Your task to perform on an android device: open app "Chime – Mobile Banking" (install if not already installed) and go to login screen Image 0: 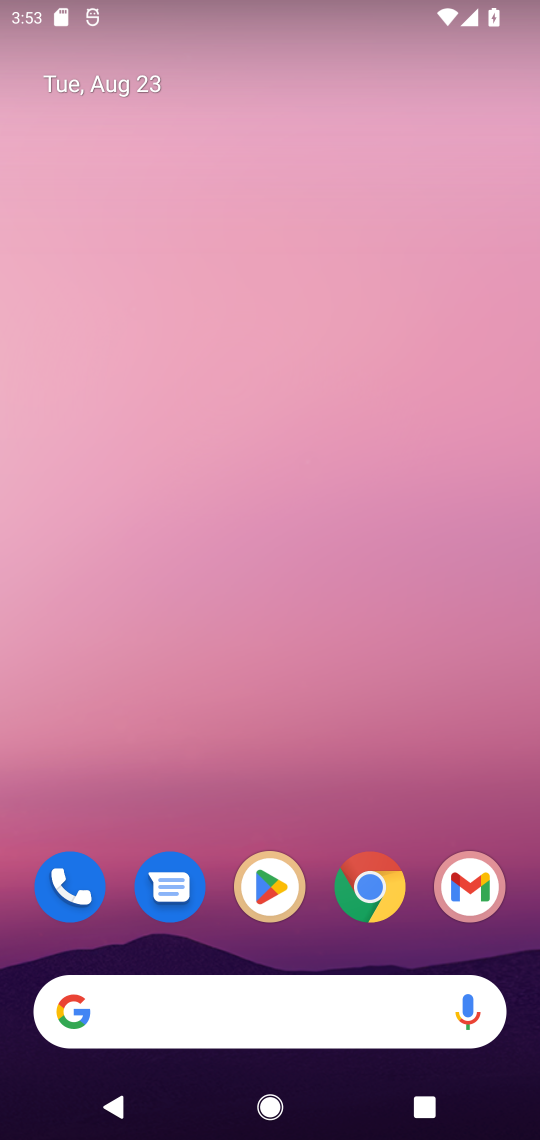
Step 0: click (267, 894)
Your task to perform on an android device: open app "Chime – Mobile Banking" (install if not already installed) and go to login screen Image 1: 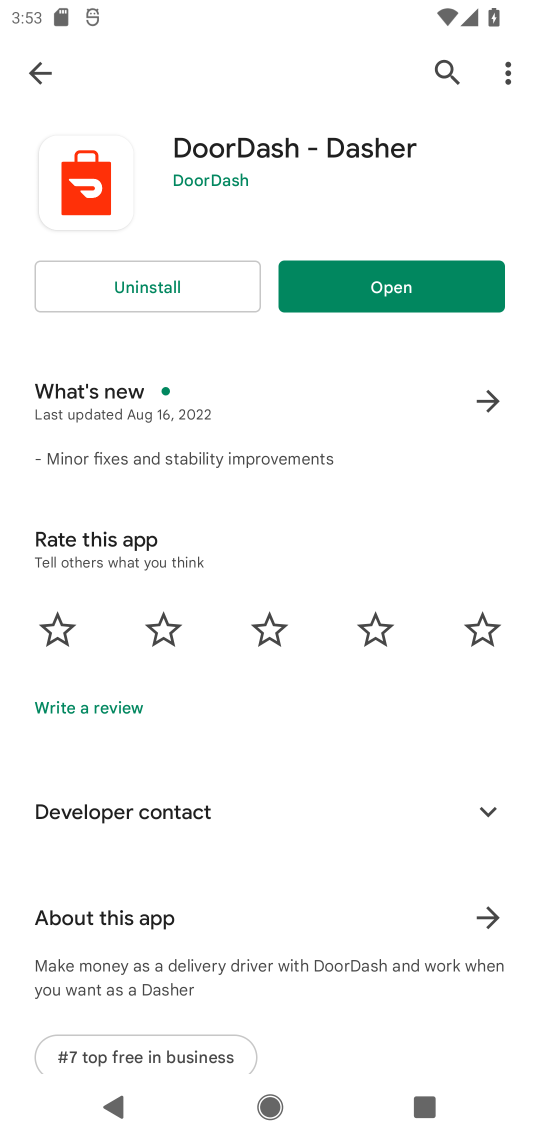
Step 1: click (30, 68)
Your task to perform on an android device: open app "Chime – Mobile Banking" (install if not already installed) and go to login screen Image 2: 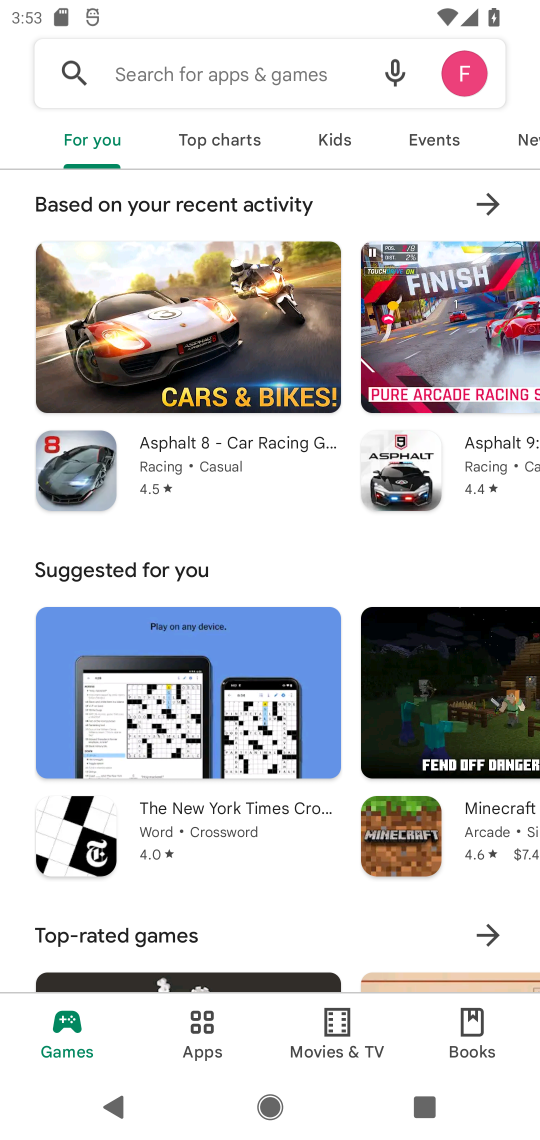
Step 2: click (172, 62)
Your task to perform on an android device: open app "Chime – Mobile Banking" (install if not already installed) and go to login screen Image 3: 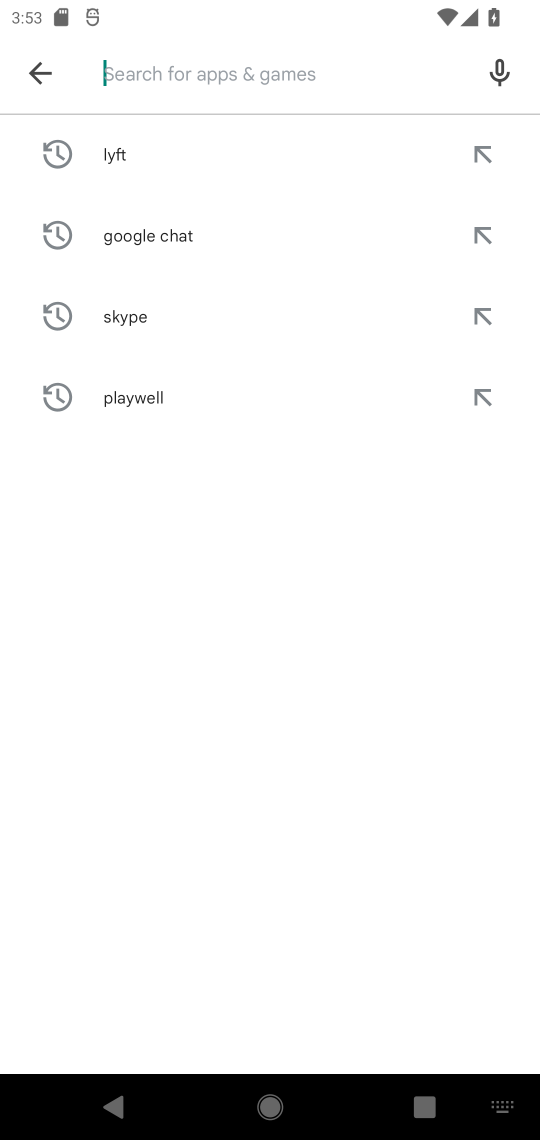
Step 3: type "Chime – Mobile Banking"
Your task to perform on an android device: open app "Chime – Mobile Banking" (install if not already installed) and go to login screen Image 4: 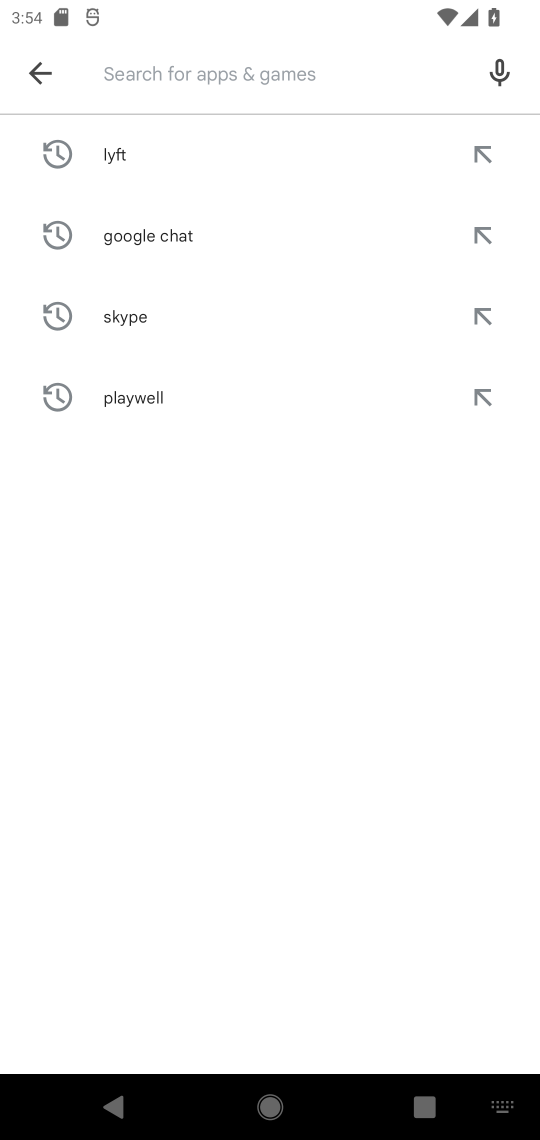
Step 4: type "Chime – Mobile Banking"
Your task to perform on an android device: open app "Chime – Mobile Banking" (install if not already installed) and go to login screen Image 5: 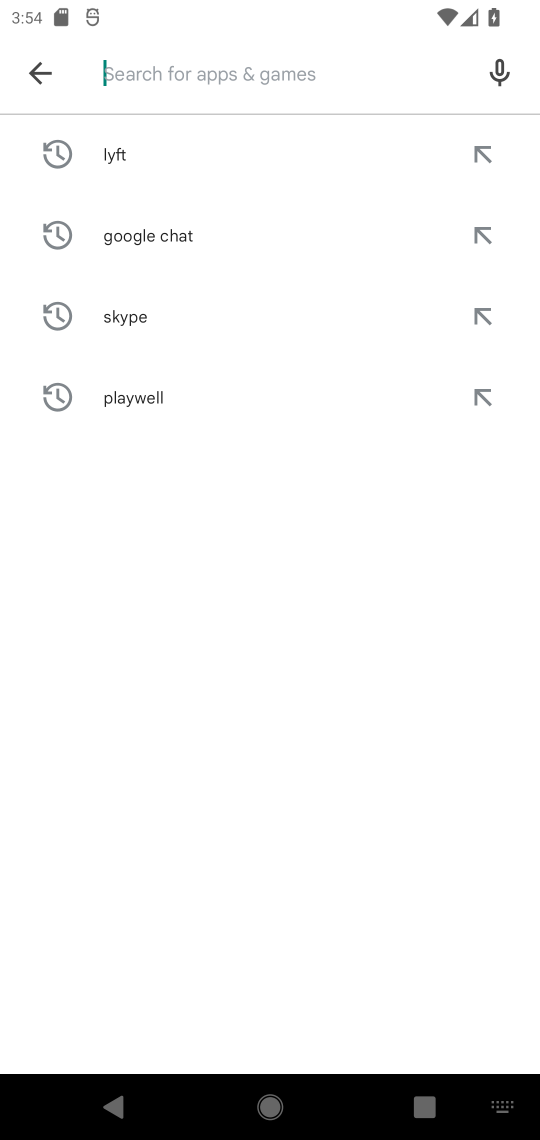
Step 5: type "Chime – Mobile Banking"
Your task to perform on an android device: open app "Chime – Mobile Banking" (install if not already installed) and go to login screen Image 6: 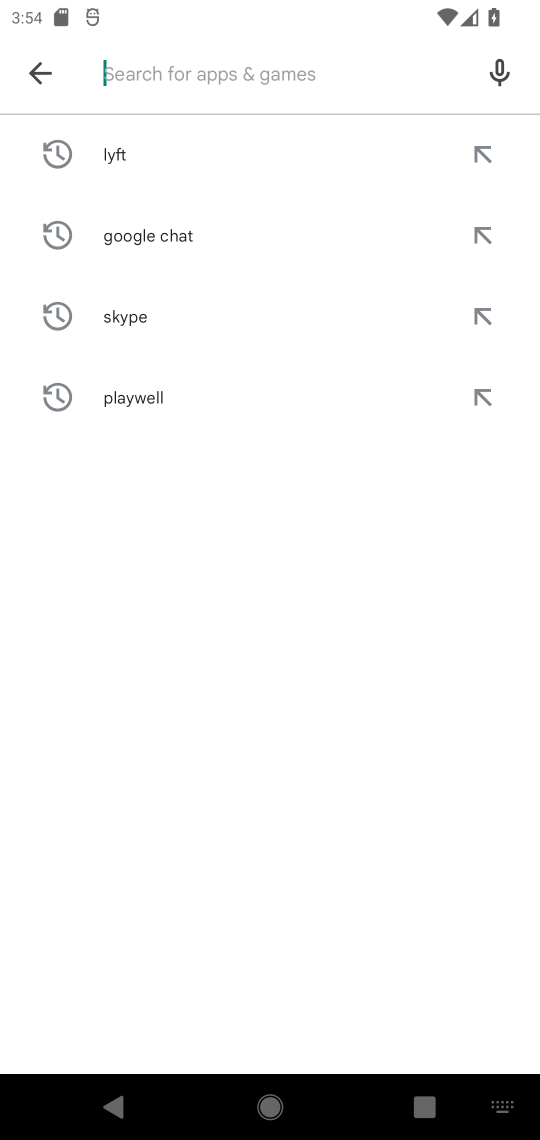
Step 6: task complete